Your task to perform on an android device: open a new tab in the chrome app Image 0: 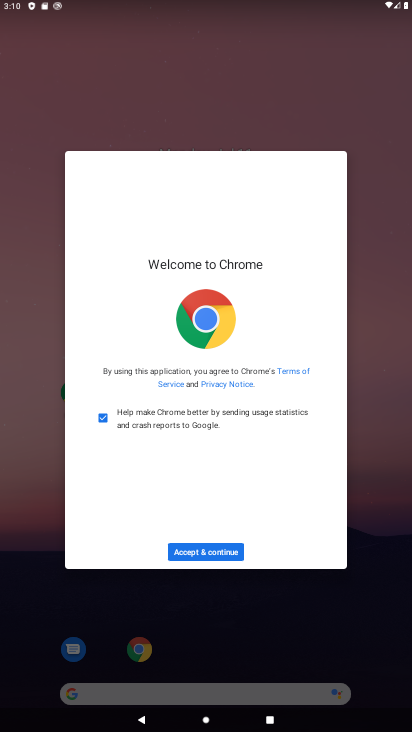
Step 0: click (226, 553)
Your task to perform on an android device: open a new tab in the chrome app Image 1: 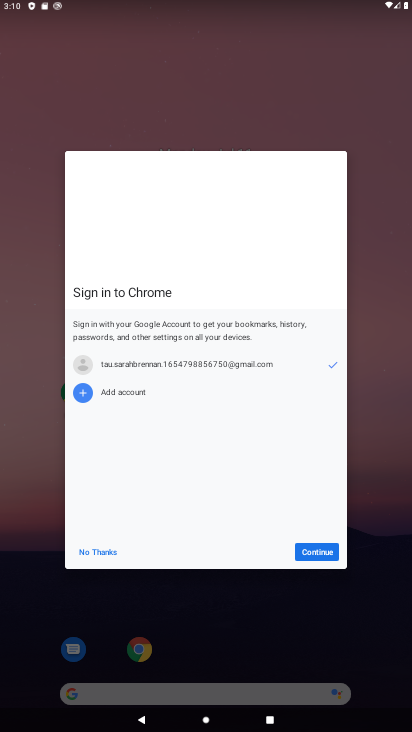
Step 1: click (107, 550)
Your task to perform on an android device: open a new tab in the chrome app Image 2: 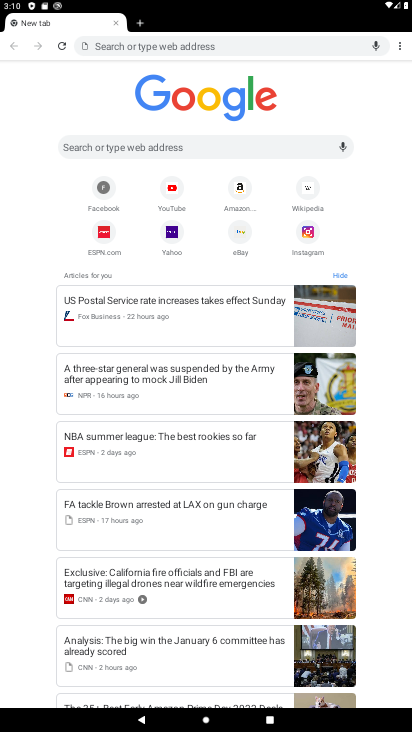
Step 2: task complete